Your task to perform on an android device: clear history in the chrome app Image 0: 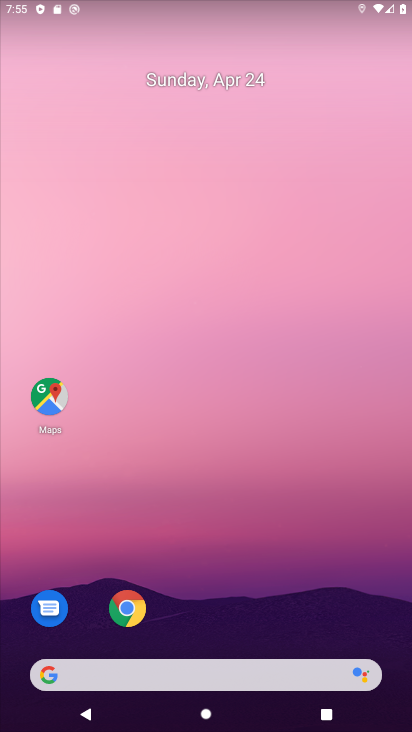
Step 0: press home button
Your task to perform on an android device: clear history in the chrome app Image 1: 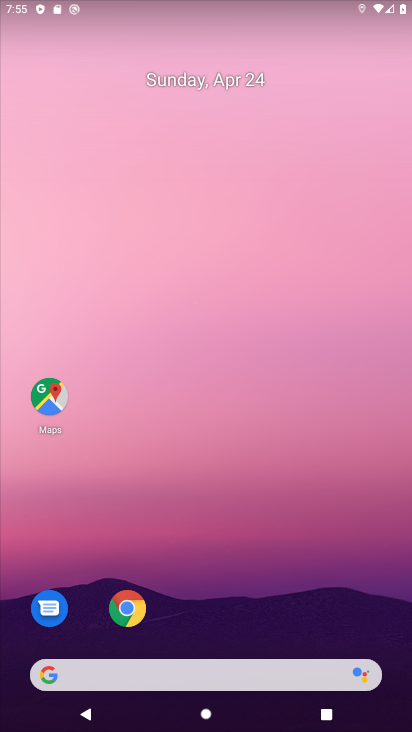
Step 1: click (129, 614)
Your task to perform on an android device: clear history in the chrome app Image 2: 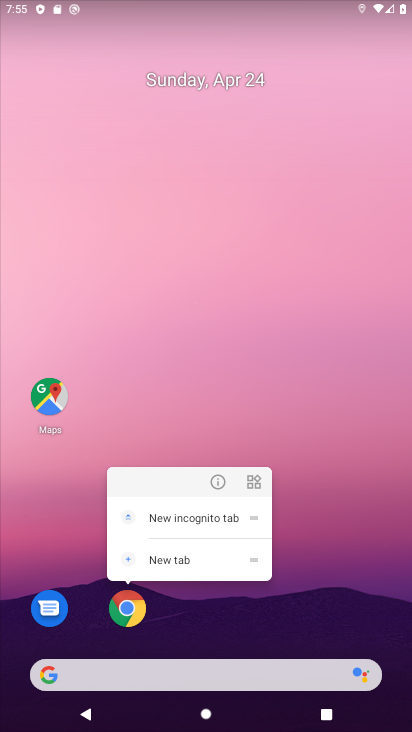
Step 2: click (119, 604)
Your task to perform on an android device: clear history in the chrome app Image 3: 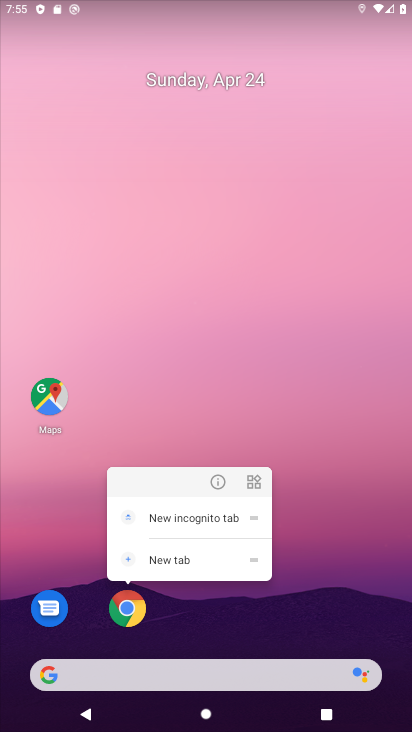
Step 3: click (123, 605)
Your task to perform on an android device: clear history in the chrome app Image 4: 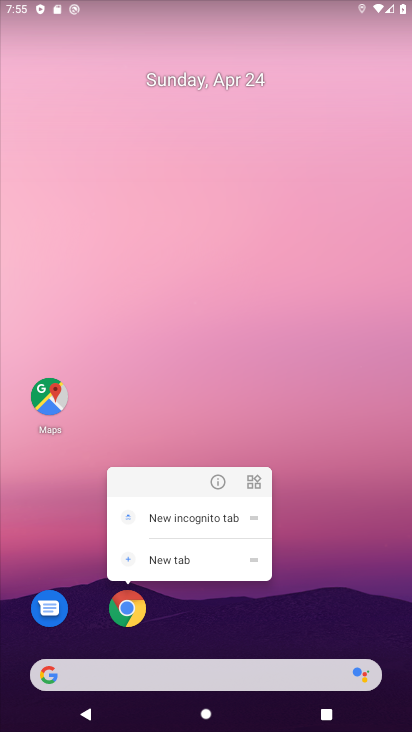
Step 4: click (133, 615)
Your task to perform on an android device: clear history in the chrome app Image 5: 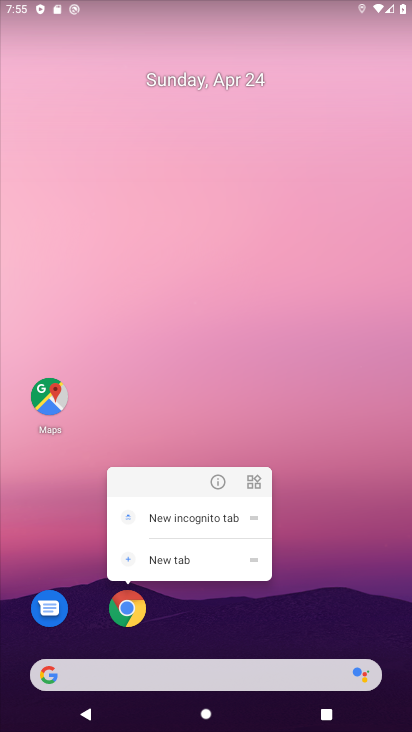
Step 5: click (134, 613)
Your task to perform on an android device: clear history in the chrome app Image 6: 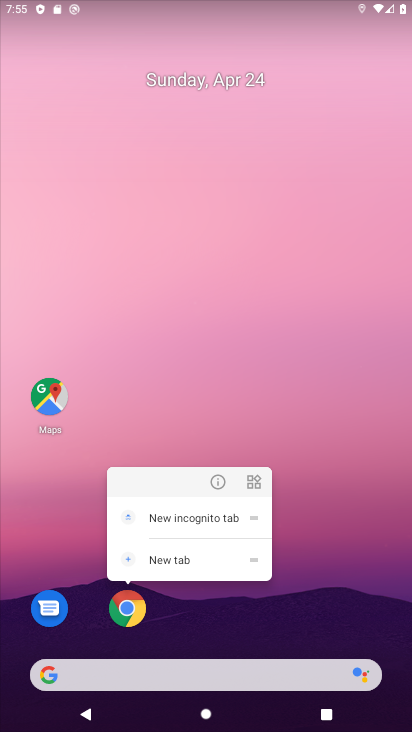
Step 6: click (136, 605)
Your task to perform on an android device: clear history in the chrome app Image 7: 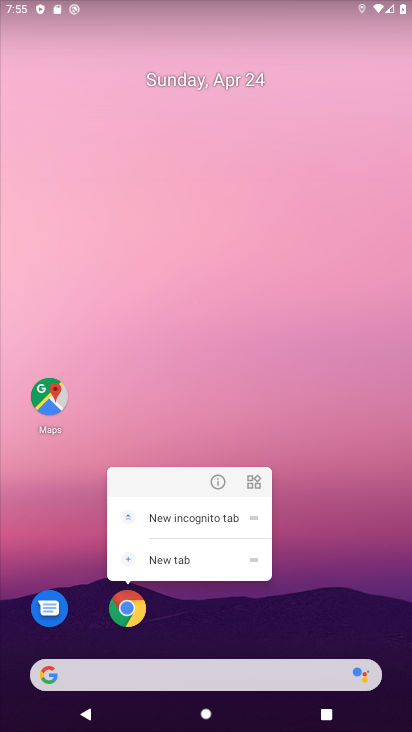
Step 7: click (132, 590)
Your task to perform on an android device: clear history in the chrome app Image 8: 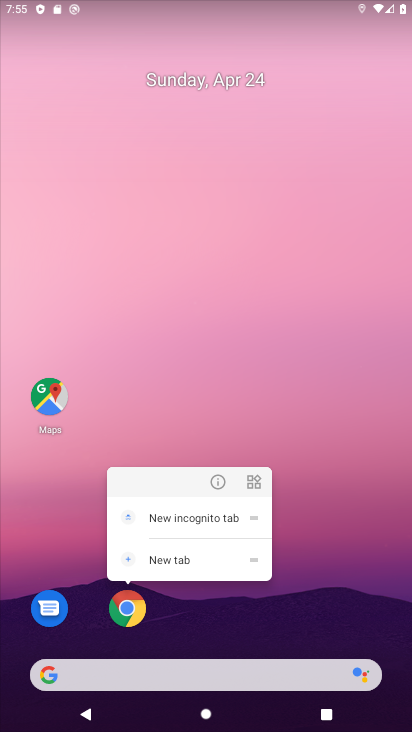
Step 8: click (124, 613)
Your task to perform on an android device: clear history in the chrome app Image 9: 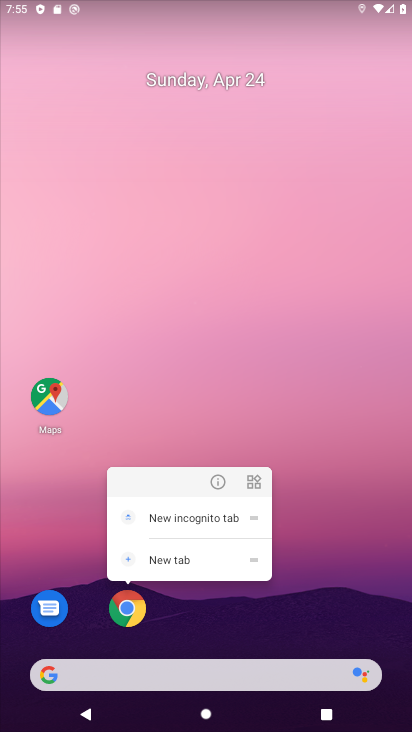
Step 9: click (138, 612)
Your task to perform on an android device: clear history in the chrome app Image 10: 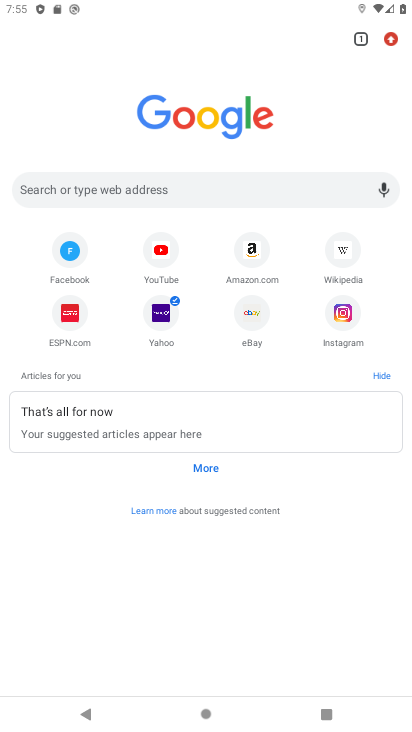
Step 10: drag from (395, 32) to (322, 277)
Your task to perform on an android device: clear history in the chrome app Image 11: 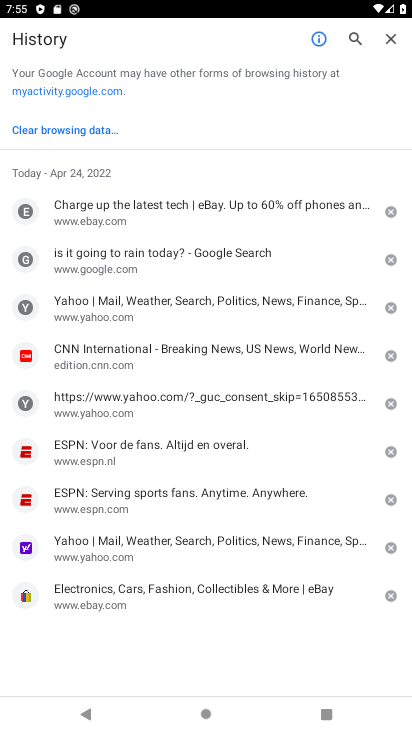
Step 11: click (84, 131)
Your task to perform on an android device: clear history in the chrome app Image 12: 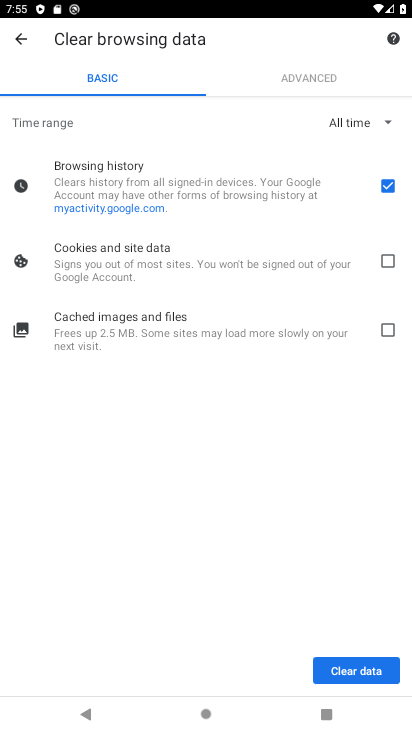
Step 12: click (373, 661)
Your task to perform on an android device: clear history in the chrome app Image 13: 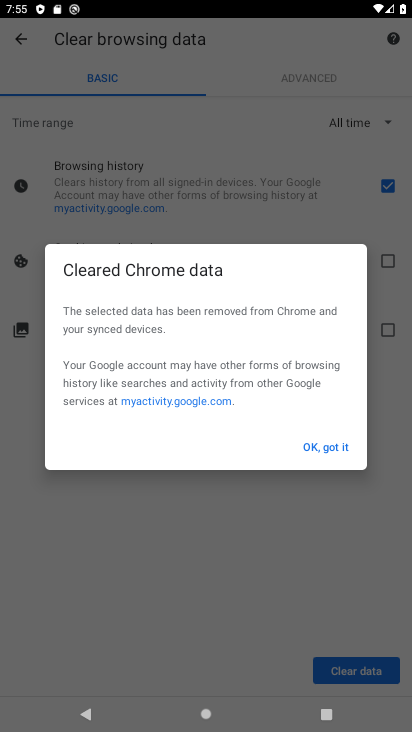
Step 13: click (320, 442)
Your task to perform on an android device: clear history in the chrome app Image 14: 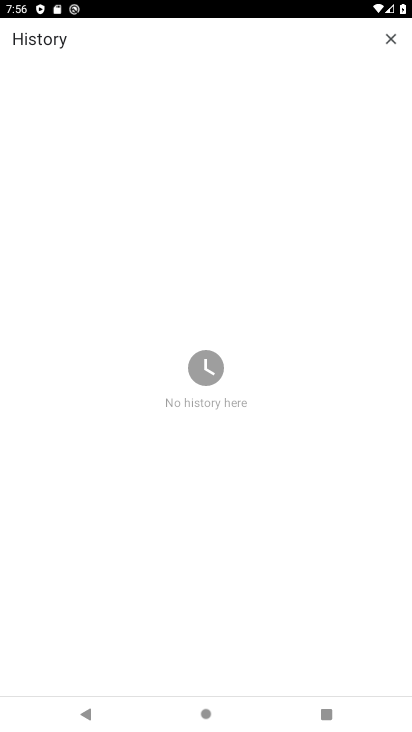
Step 14: task complete